Your task to perform on an android device: toggle show notifications on the lock screen Image 0: 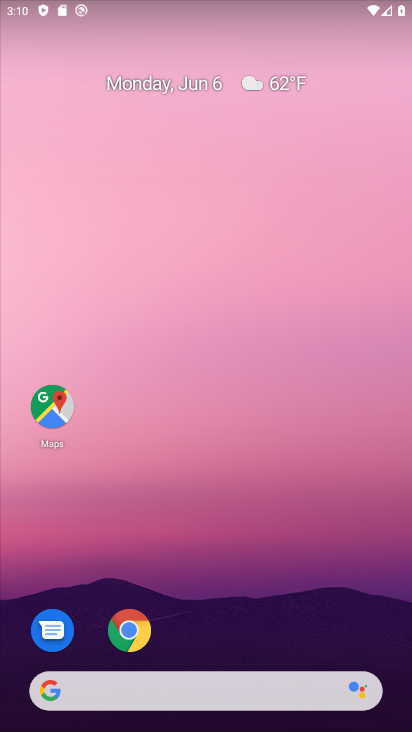
Step 0: press home button
Your task to perform on an android device: toggle show notifications on the lock screen Image 1: 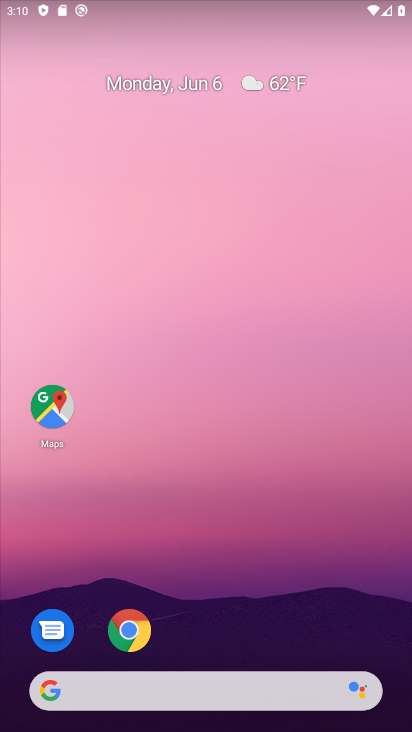
Step 1: drag from (217, 634) to (241, 0)
Your task to perform on an android device: toggle show notifications on the lock screen Image 2: 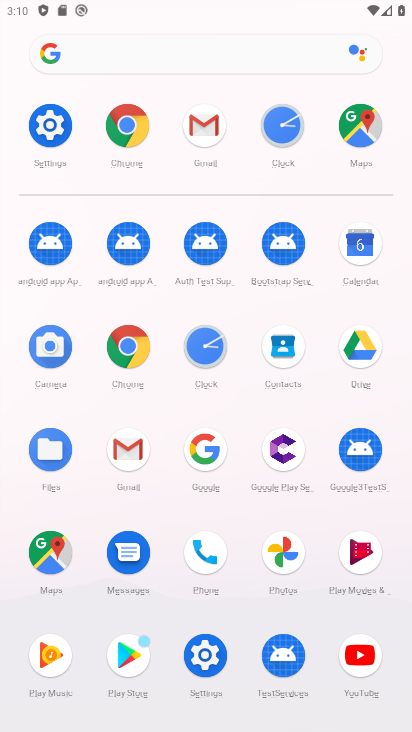
Step 2: click (29, 140)
Your task to perform on an android device: toggle show notifications on the lock screen Image 3: 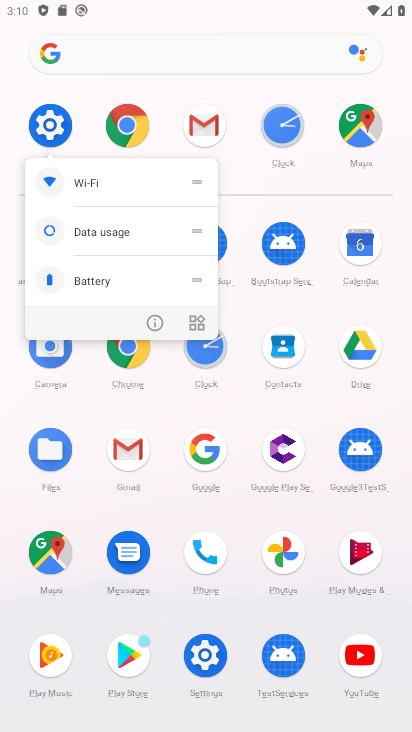
Step 3: click (29, 140)
Your task to perform on an android device: toggle show notifications on the lock screen Image 4: 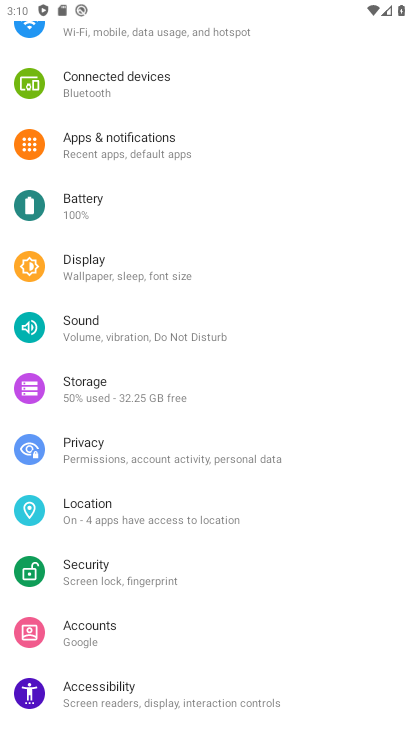
Step 4: click (145, 141)
Your task to perform on an android device: toggle show notifications on the lock screen Image 5: 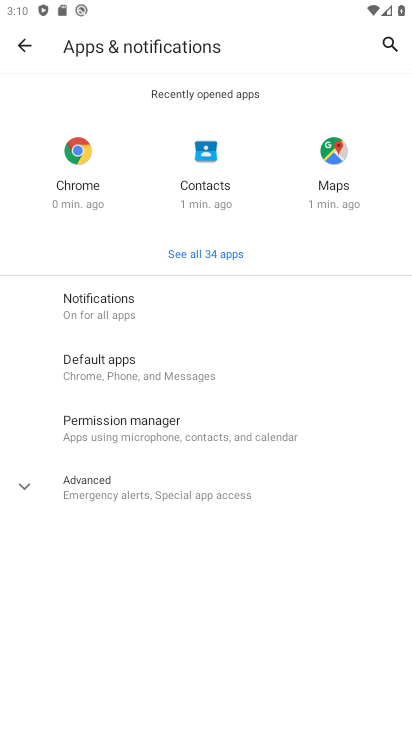
Step 5: click (120, 281)
Your task to perform on an android device: toggle show notifications on the lock screen Image 6: 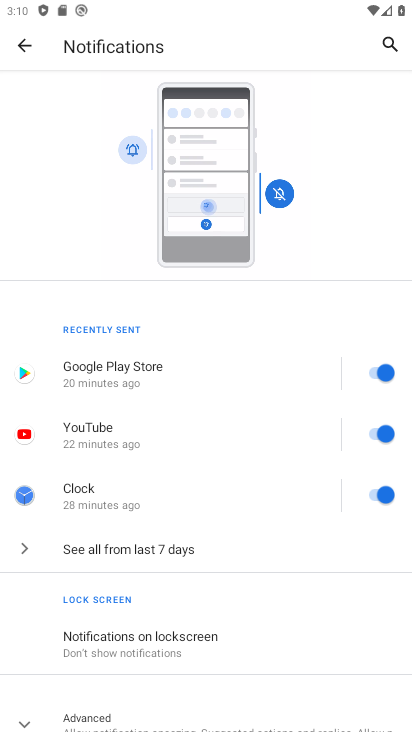
Step 6: click (88, 647)
Your task to perform on an android device: toggle show notifications on the lock screen Image 7: 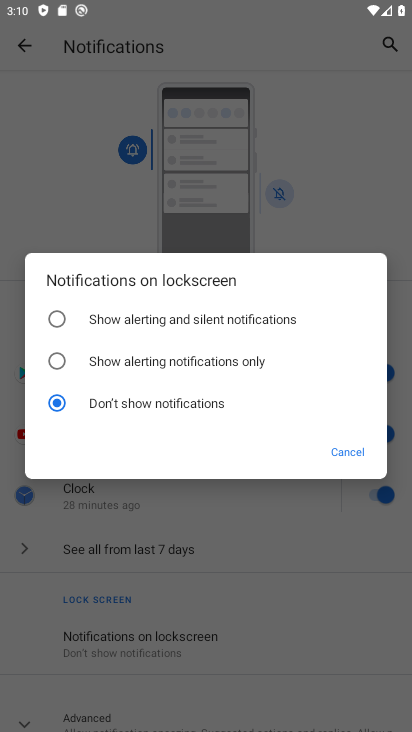
Step 7: click (81, 365)
Your task to perform on an android device: toggle show notifications on the lock screen Image 8: 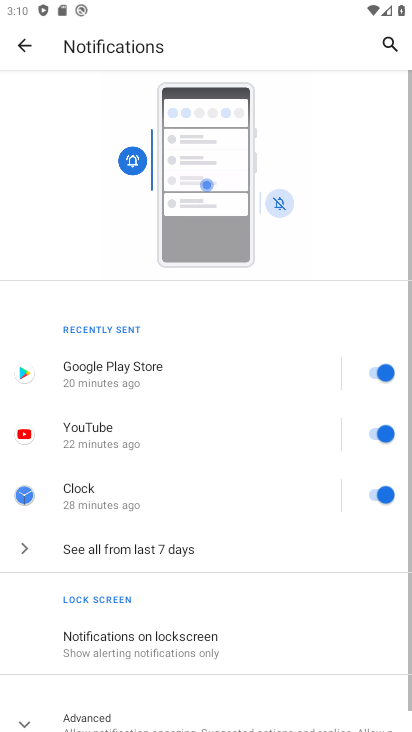
Step 8: task complete